Your task to perform on an android device: snooze an email in the gmail app Image 0: 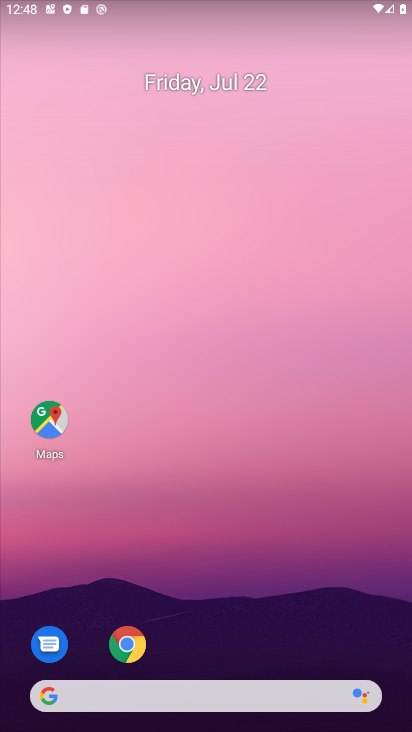
Step 0: press home button
Your task to perform on an android device: snooze an email in the gmail app Image 1: 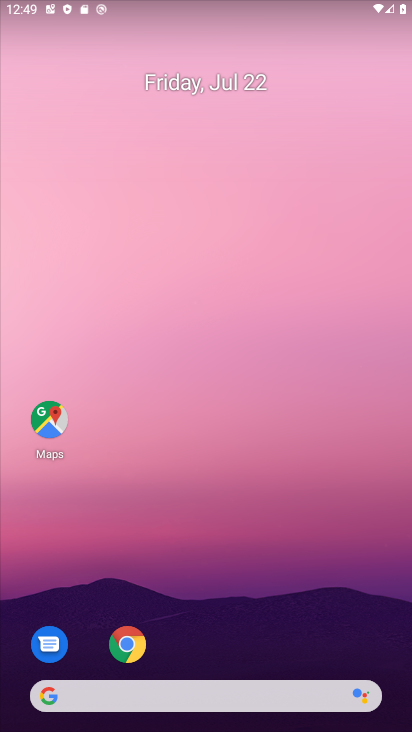
Step 1: drag from (207, 663) to (216, 21)
Your task to perform on an android device: snooze an email in the gmail app Image 2: 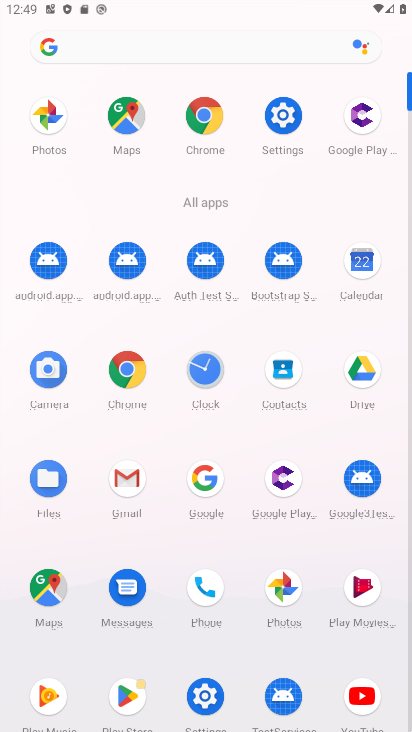
Step 2: click (124, 472)
Your task to perform on an android device: snooze an email in the gmail app Image 3: 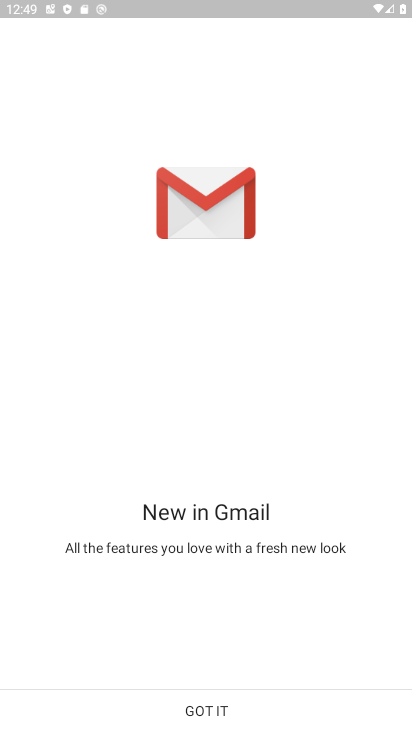
Step 3: click (211, 711)
Your task to perform on an android device: snooze an email in the gmail app Image 4: 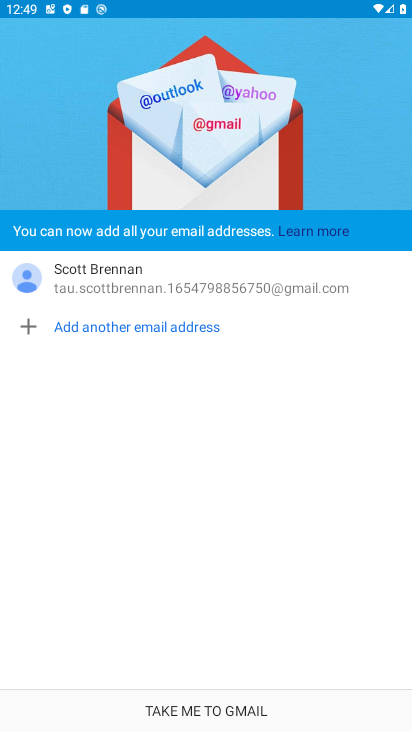
Step 4: click (203, 715)
Your task to perform on an android device: snooze an email in the gmail app Image 5: 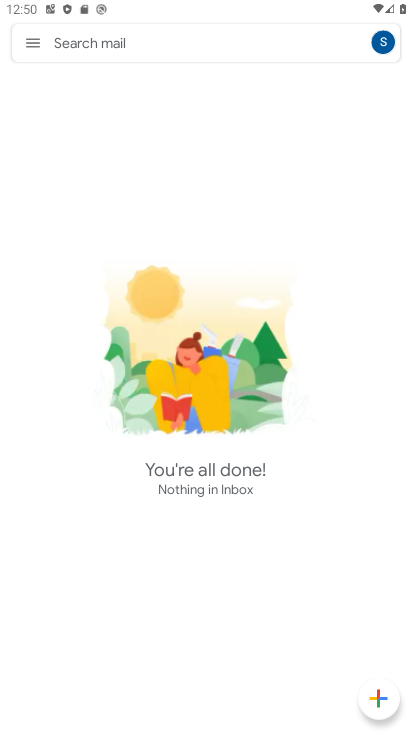
Step 5: task complete